Your task to perform on an android device: Search for pizza restaurants on Maps Image 0: 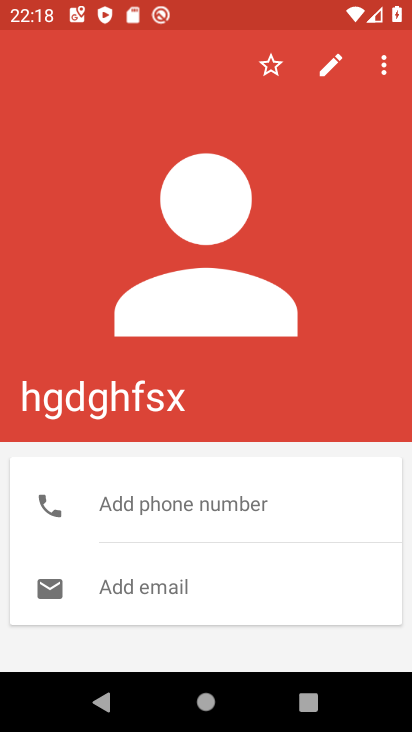
Step 0: press home button
Your task to perform on an android device: Search for pizza restaurants on Maps Image 1: 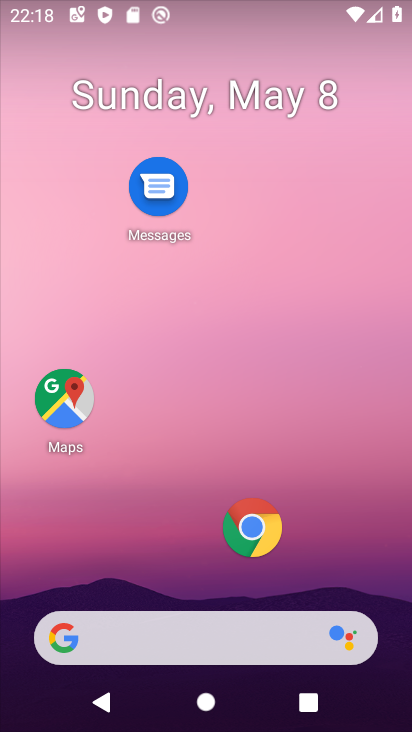
Step 1: click (67, 403)
Your task to perform on an android device: Search for pizza restaurants on Maps Image 2: 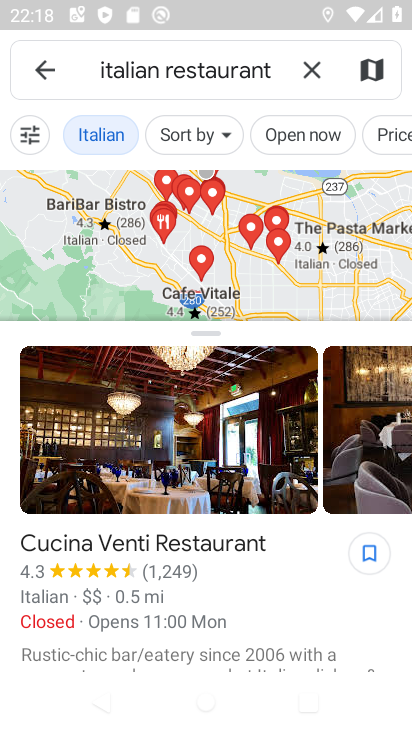
Step 2: click (307, 67)
Your task to perform on an android device: Search for pizza restaurants on Maps Image 3: 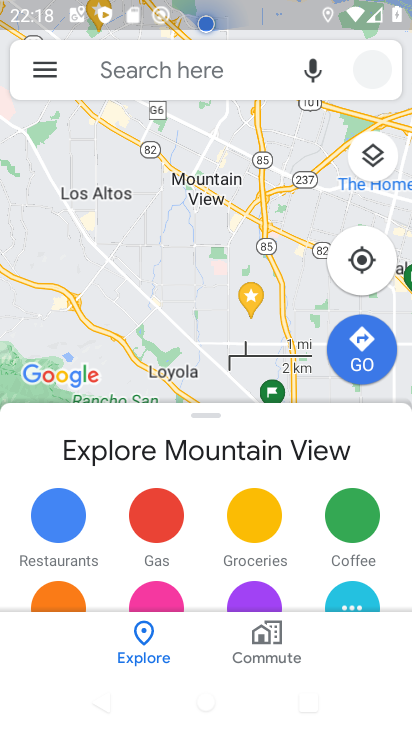
Step 3: click (169, 75)
Your task to perform on an android device: Search for pizza restaurants on Maps Image 4: 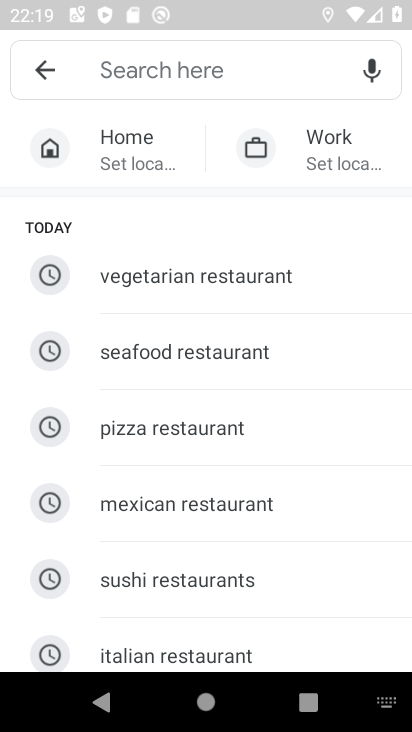
Step 4: type "pizza restaurents"
Your task to perform on an android device: Search for pizza restaurants on Maps Image 5: 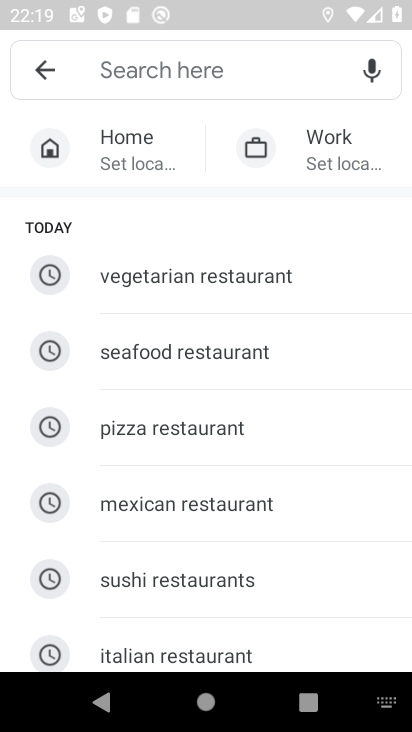
Step 5: click (200, 430)
Your task to perform on an android device: Search for pizza restaurants on Maps Image 6: 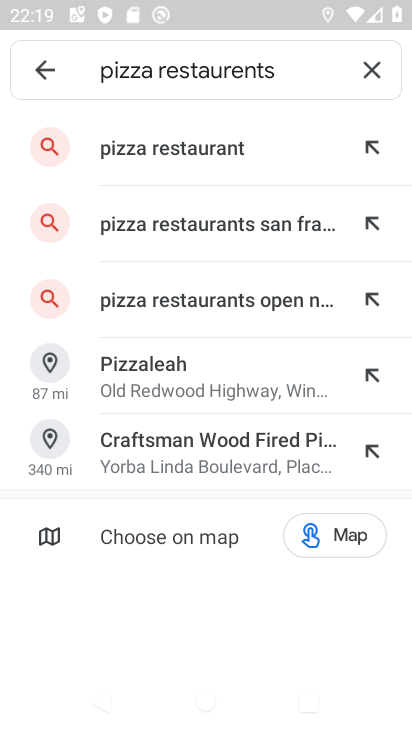
Step 6: click (205, 159)
Your task to perform on an android device: Search for pizza restaurants on Maps Image 7: 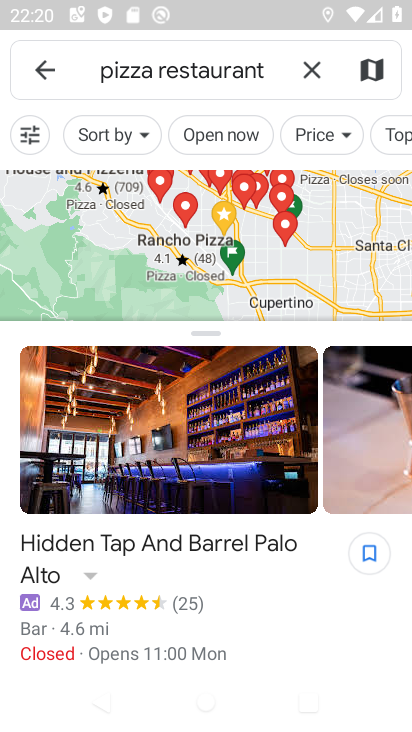
Step 7: task complete